Your task to perform on an android device: Go to Android settings Image 0: 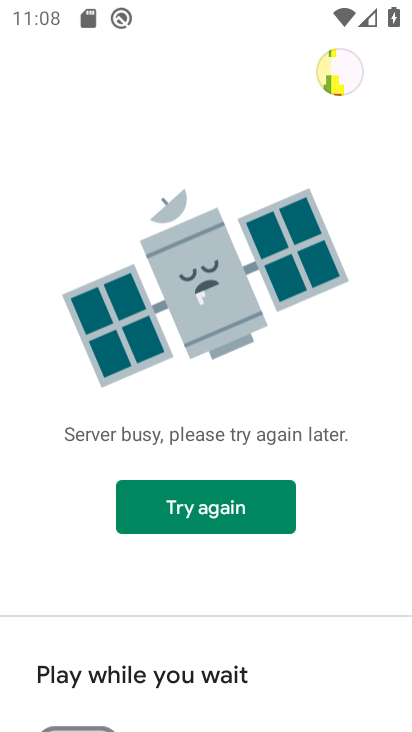
Step 0: press home button
Your task to perform on an android device: Go to Android settings Image 1: 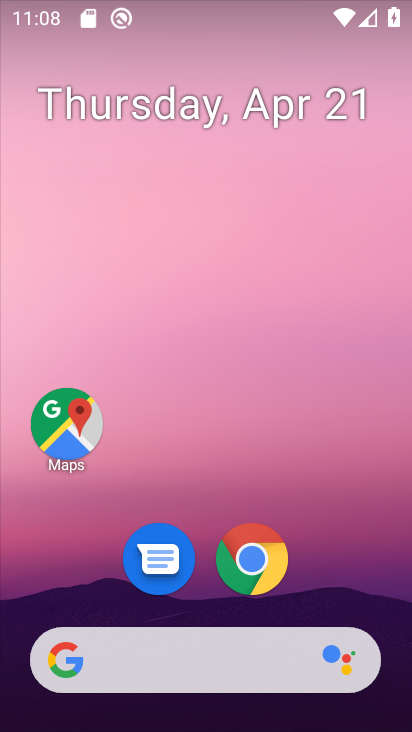
Step 1: drag from (372, 587) to (376, 16)
Your task to perform on an android device: Go to Android settings Image 2: 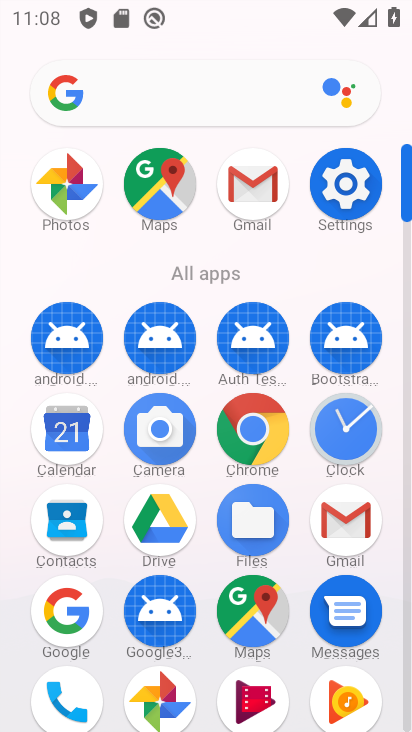
Step 2: click (333, 185)
Your task to perform on an android device: Go to Android settings Image 3: 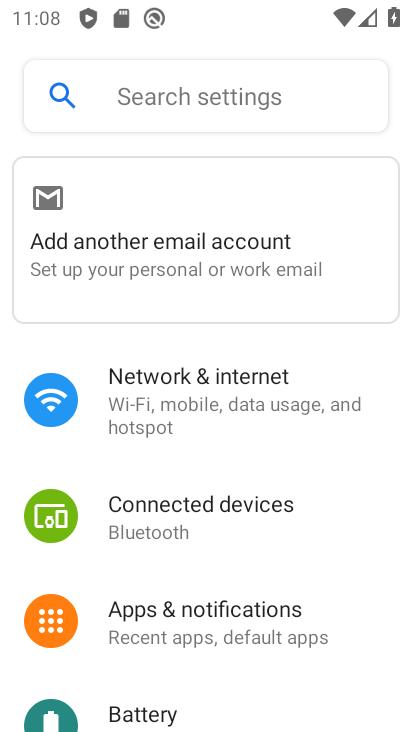
Step 3: task complete